Your task to perform on an android device: Show me popular videos on Youtube Image 0: 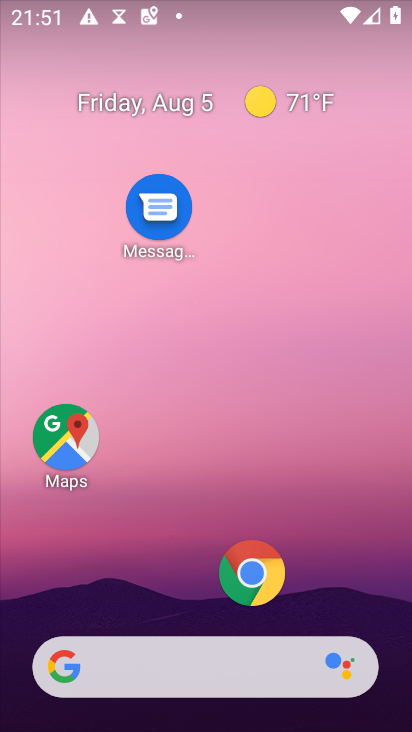
Step 0: press home button
Your task to perform on an android device: Show me popular videos on Youtube Image 1: 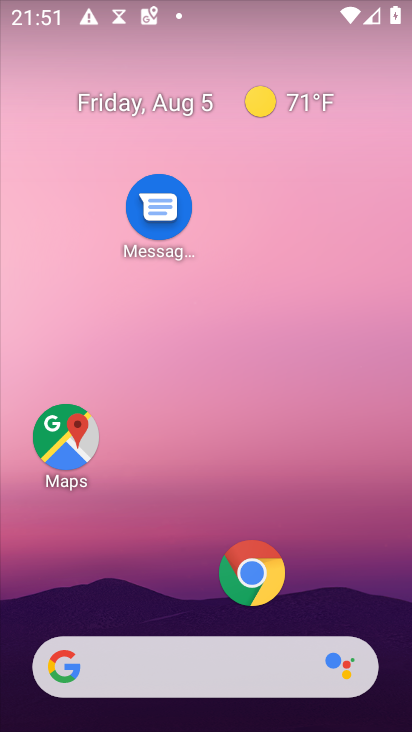
Step 1: drag from (203, 614) to (218, 92)
Your task to perform on an android device: Show me popular videos on Youtube Image 2: 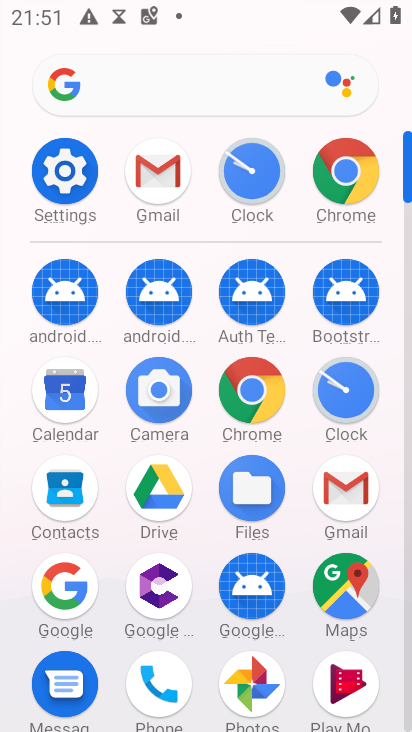
Step 2: drag from (200, 655) to (189, 168)
Your task to perform on an android device: Show me popular videos on Youtube Image 3: 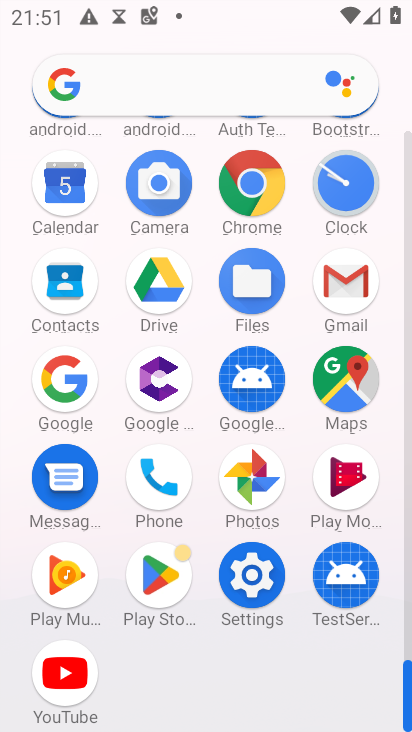
Step 3: click (61, 664)
Your task to perform on an android device: Show me popular videos on Youtube Image 4: 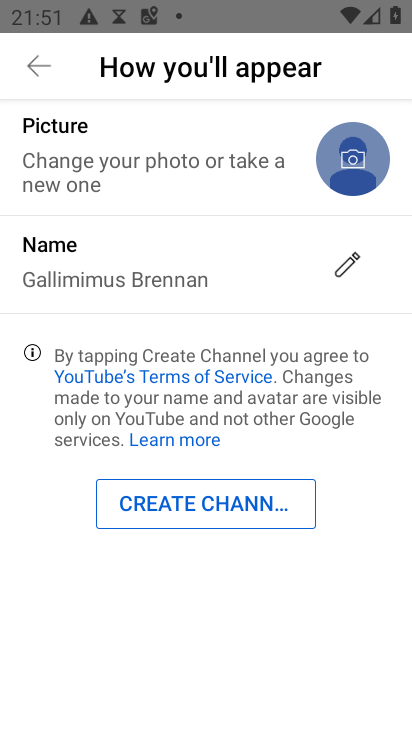
Step 4: click (34, 66)
Your task to perform on an android device: Show me popular videos on Youtube Image 5: 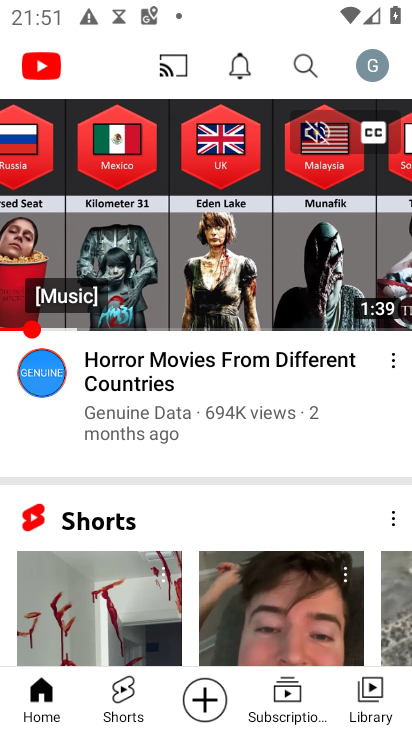
Step 5: drag from (115, 168) to (124, 596)
Your task to perform on an android device: Show me popular videos on Youtube Image 6: 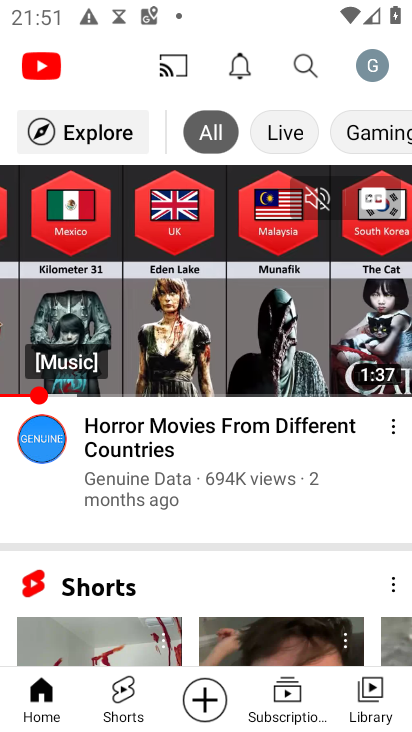
Step 6: click (74, 116)
Your task to perform on an android device: Show me popular videos on Youtube Image 7: 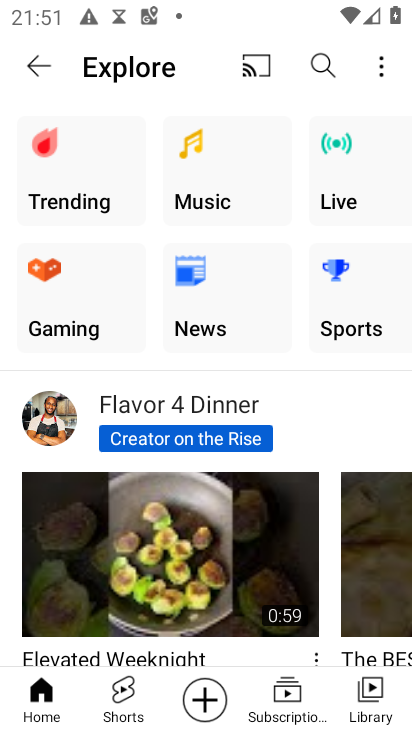
Step 7: click (67, 153)
Your task to perform on an android device: Show me popular videos on Youtube Image 8: 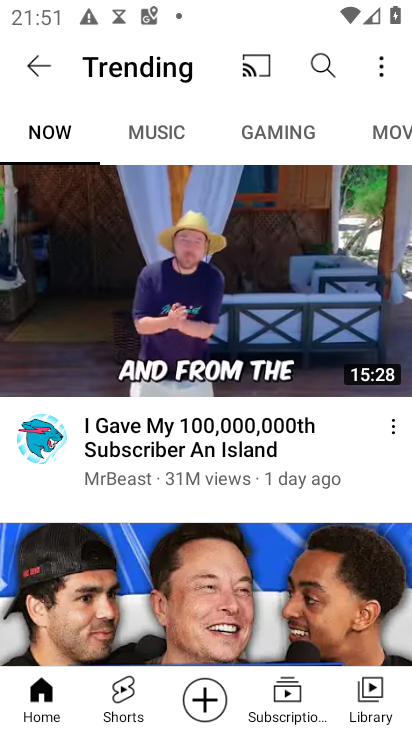
Step 8: task complete